Your task to perform on an android device: Open eBay Image 0: 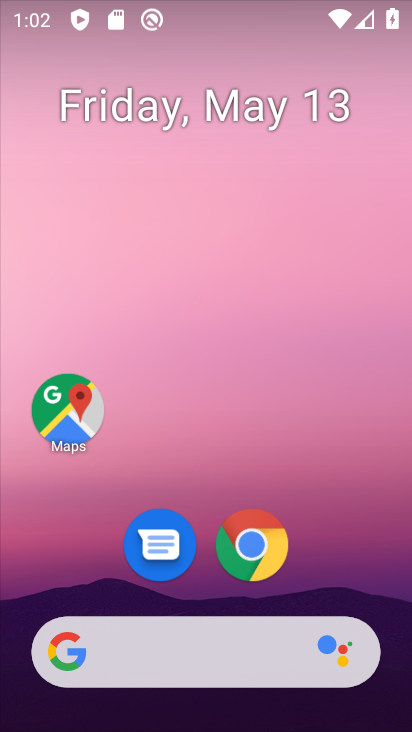
Step 0: click (274, 534)
Your task to perform on an android device: Open eBay Image 1: 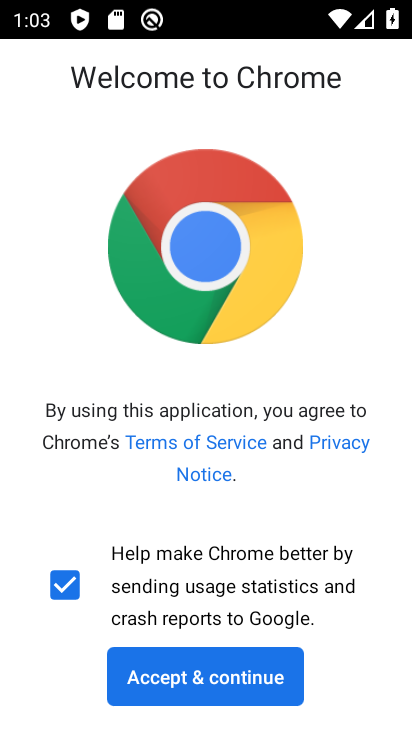
Step 1: click (235, 677)
Your task to perform on an android device: Open eBay Image 2: 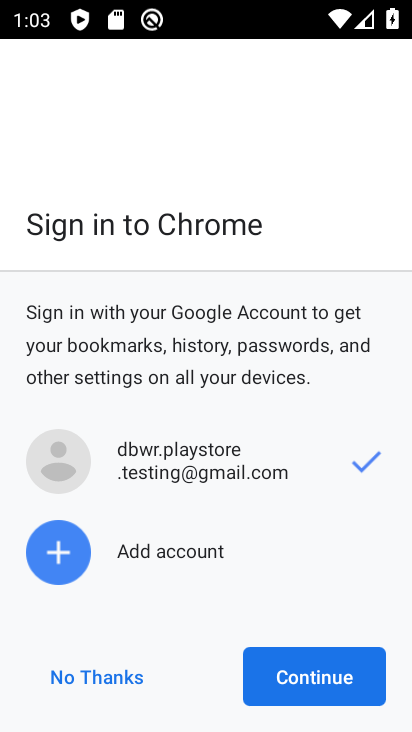
Step 2: click (286, 690)
Your task to perform on an android device: Open eBay Image 3: 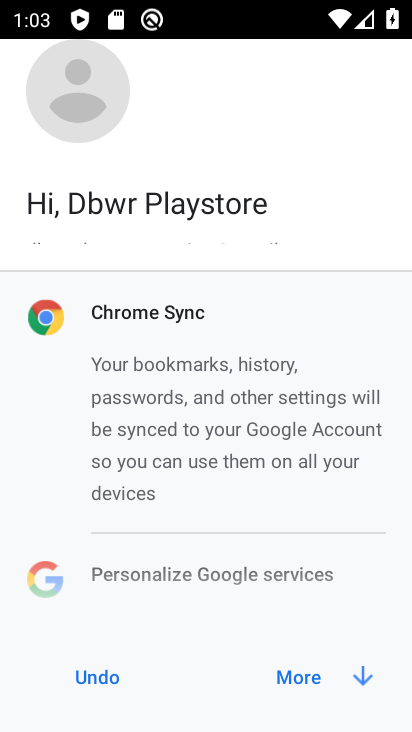
Step 3: click (293, 678)
Your task to perform on an android device: Open eBay Image 4: 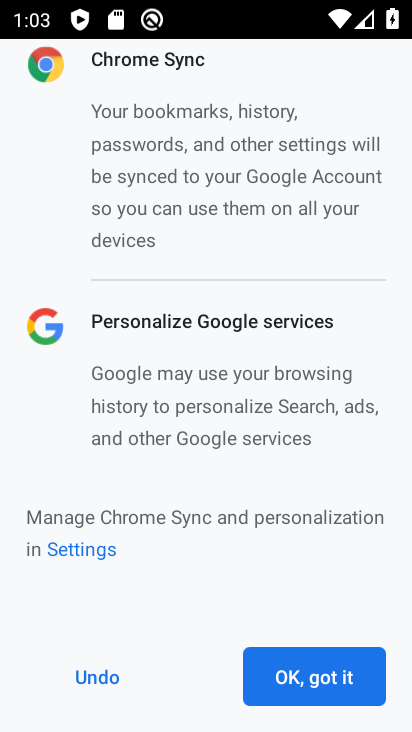
Step 4: click (293, 678)
Your task to perform on an android device: Open eBay Image 5: 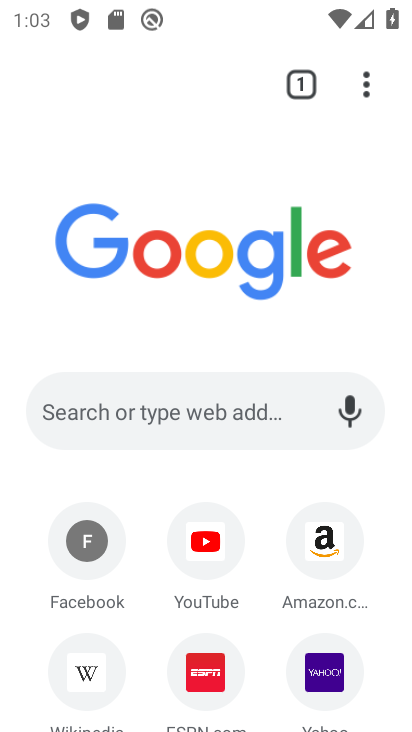
Step 5: click (194, 417)
Your task to perform on an android device: Open eBay Image 6: 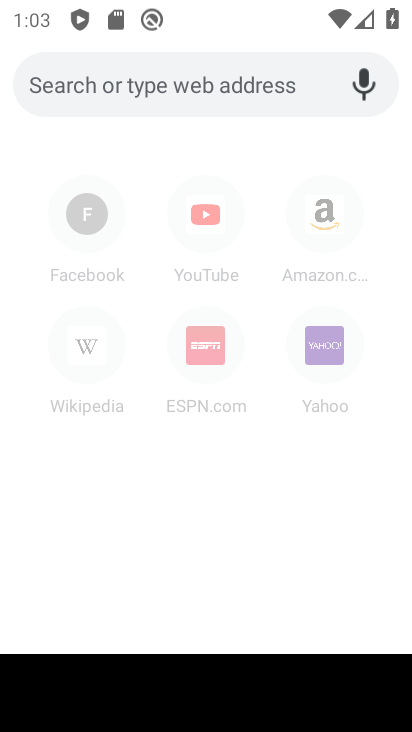
Step 6: type "ebay.com"
Your task to perform on an android device: Open eBay Image 7: 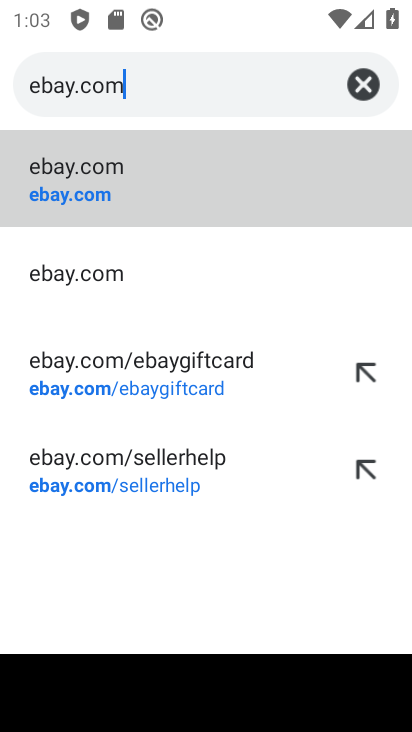
Step 7: click (224, 195)
Your task to perform on an android device: Open eBay Image 8: 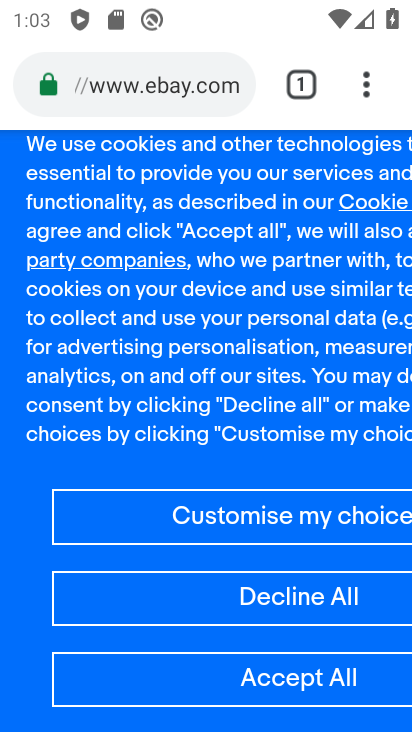
Step 8: task complete